Your task to perform on an android device: search for starred emails in the gmail app Image 0: 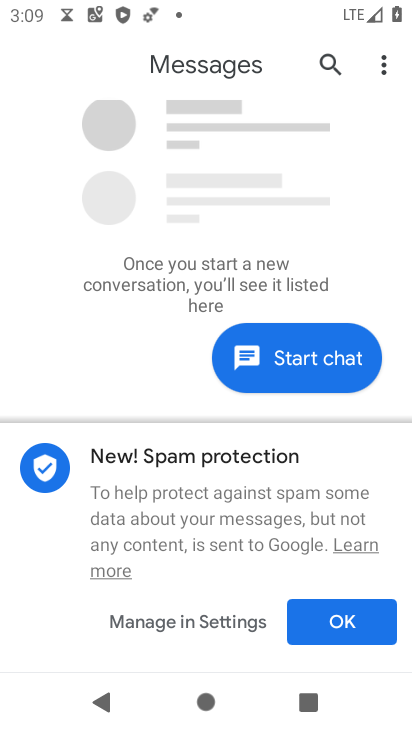
Step 0: press home button
Your task to perform on an android device: search for starred emails in the gmail app Image 1: 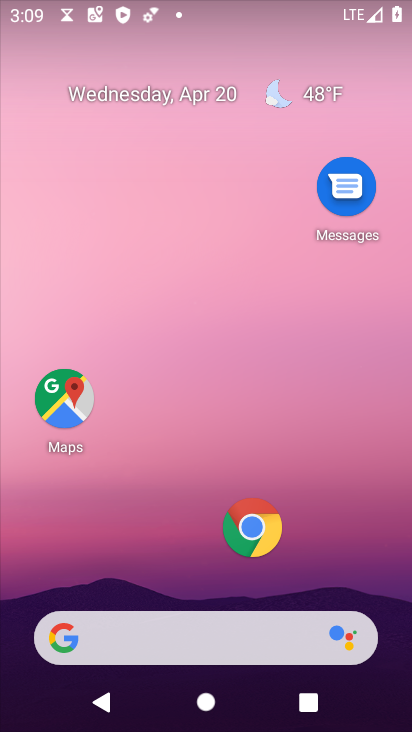
Step 1: drag from (177, 640) to (336, 149)
Your task to perform on an android device: search for starred emails in the gmail app Image 2: 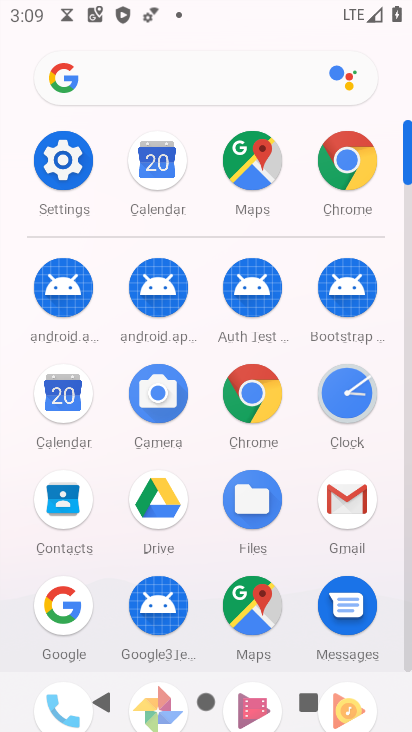
Step 2: click (340, 502)
Your task to perform on an android device: search for starred emails in the gmail app Image 3: 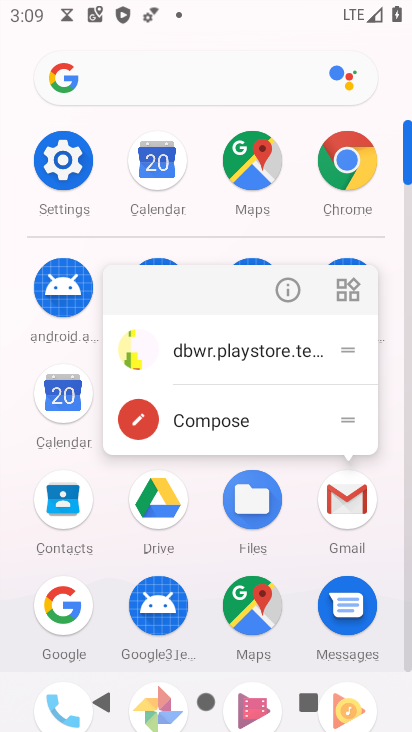
Step 3: click (347, 508)
Your task to perform on an android device: search for starred emails in the gmail app Image 4: 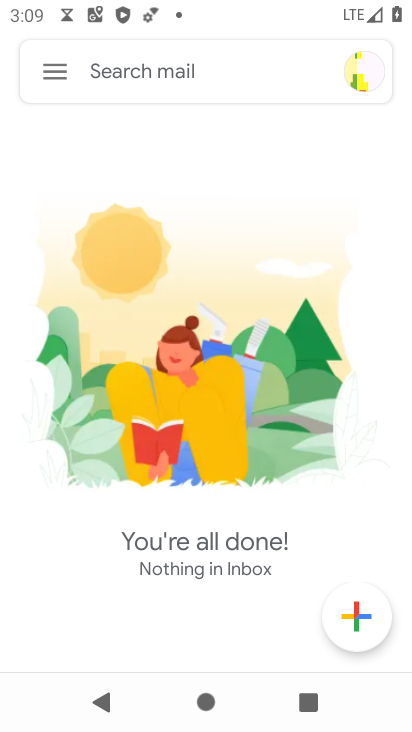
Step 4: click (55, 75)
Your task to perform on an android device: search for starred emails in the gmail app Image 5: 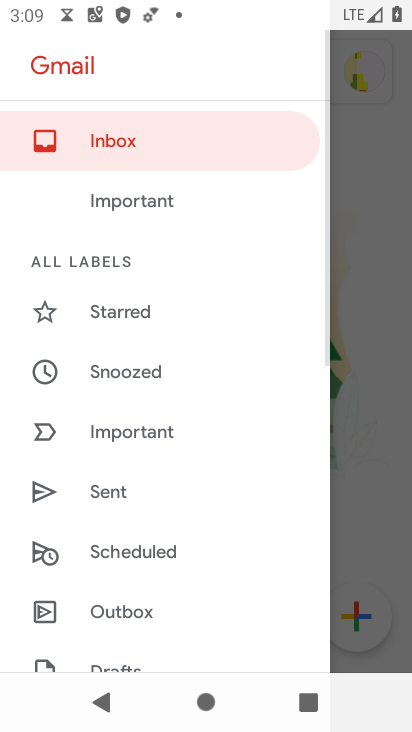
Step 5: click (113, 308)
Your task to perform on an android device: search for starred emails in the gmail app Image 6: 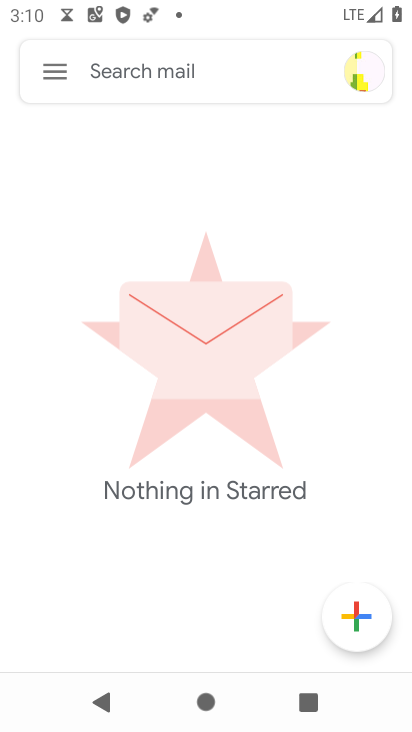
Step 6: task complete